Your task to perform on an android device: find photos in the google photos app Image 0: 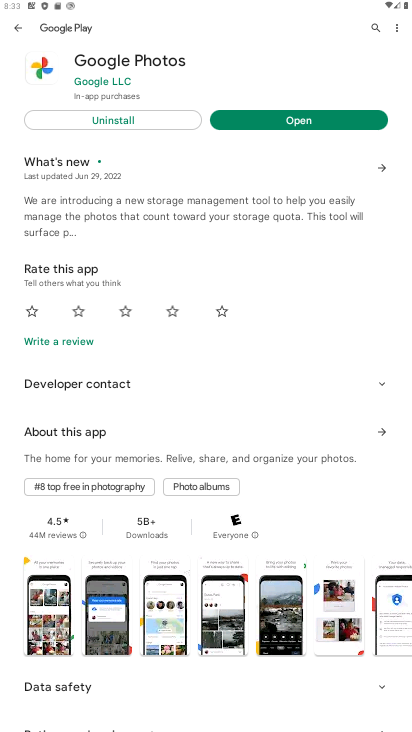
Step 0: press home button
Your task to perform on an android device: find photos in the google photos app Image 1: 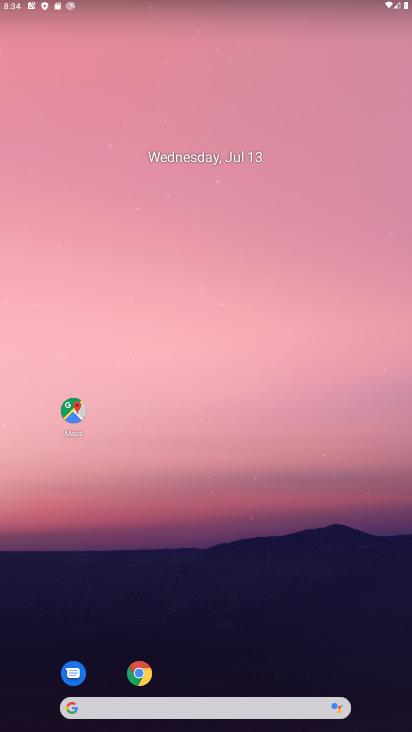
Step 1: drag from (282, 590) to (242, 129)
Your task to perform on an android device: find photos in the google photos app Image 2: 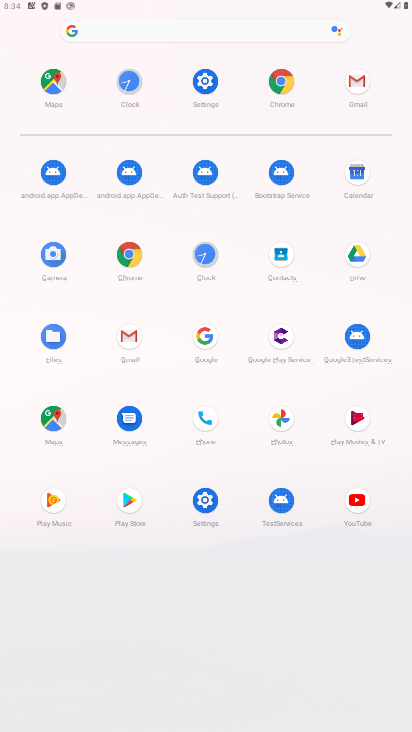
Step 2: click (284, 419)
Your task to perform on an android device: find photos in the google photos app Image 3: 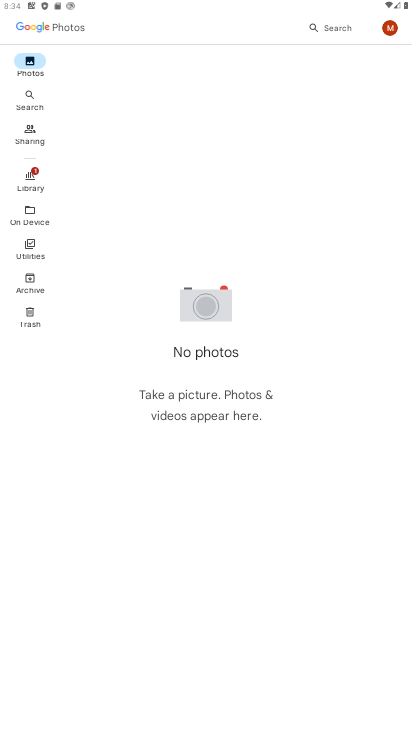
Step 3: task complete